Your task to perform on an android device: Go to battery settings Image 0: 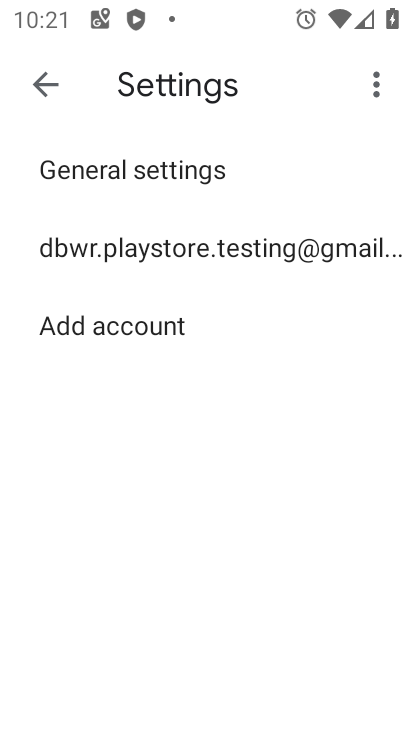
Step 0: press home button
Your task to perform on an android device: Go to battery settings Image 1: 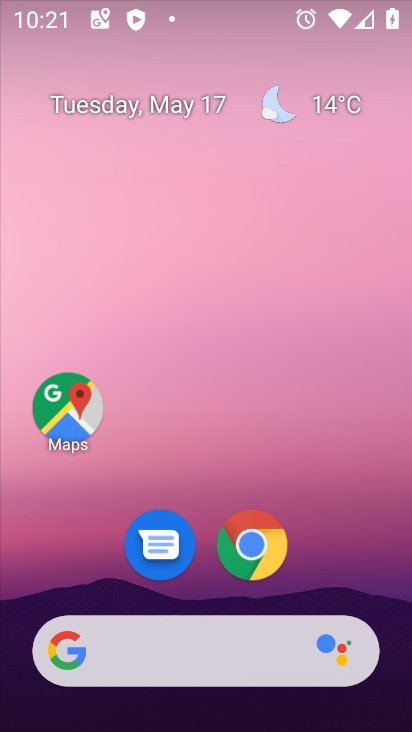
Step 1: drag from (288, 658) to (313, 164)
Your task to perform on an android device: Go to battery settings Image 2: 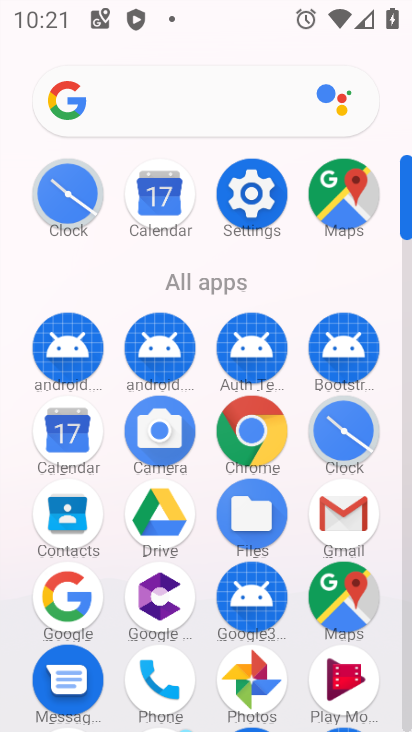
Step 2: click (274, 206)
Your task to perform on an android device: Go to battery settings Image 3: 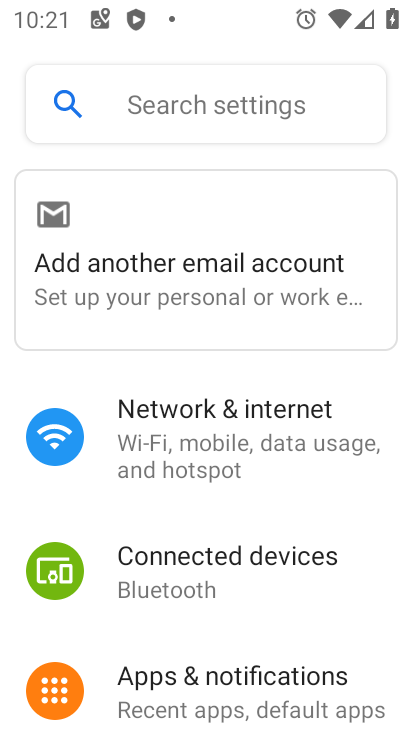
Step 3: click (269, 427)
Your task to perform on an android device: Go to battery settings Image 4: 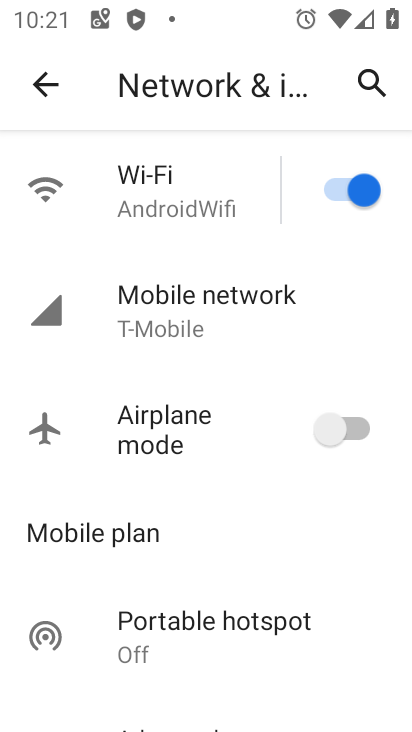
Step 4: press back button
Your task to perform on an android device: Go to battery settings Image 5: 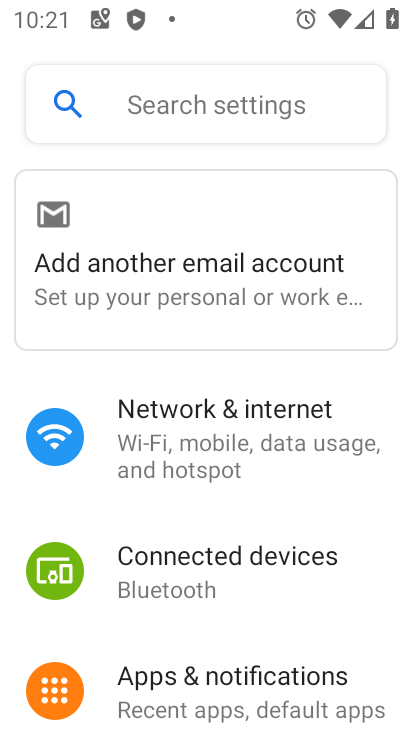
Step 5: drag from (211, 569) to (309, 220)
Your task to perform on an android device: Go to battery settings Image 6: 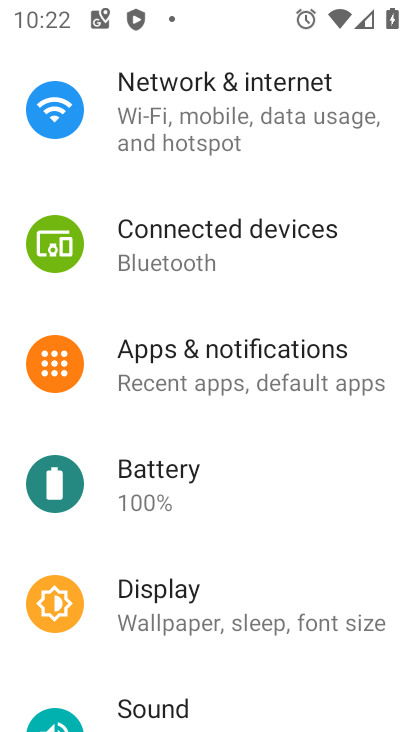
Step 6: click (178, 463)
Your task to perform on an android device: Go to battery settings Image 7: 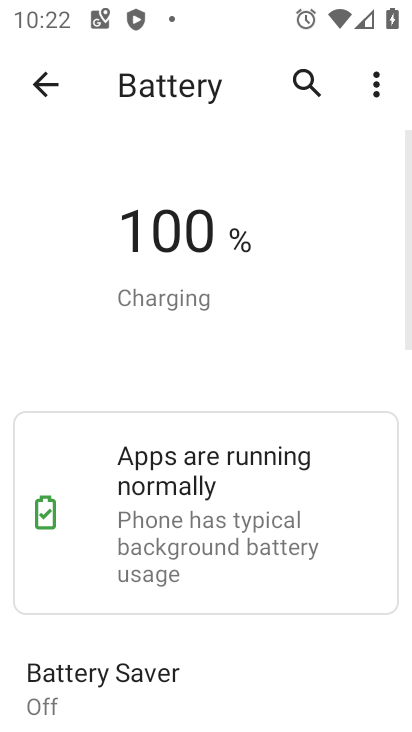
Step 7: task complete